Your task to perform on an android device: Open the phone app and click the voicemail tab. Image 0: 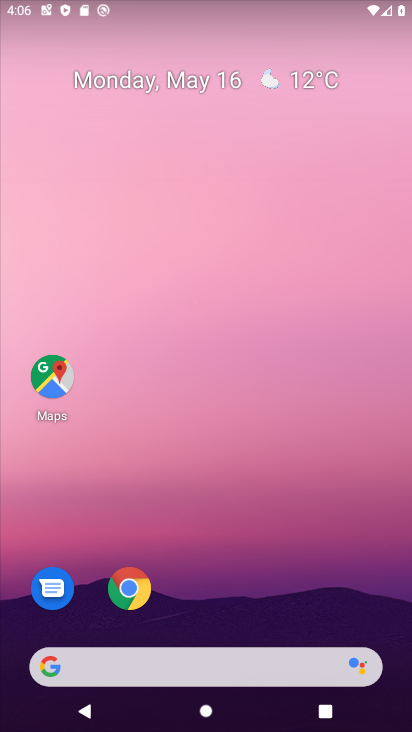
Step 0: drag from (212, 572) to (180, 82)
Your task to perform on an android device: Open the phone app and click the voicemail tab. Image 1: 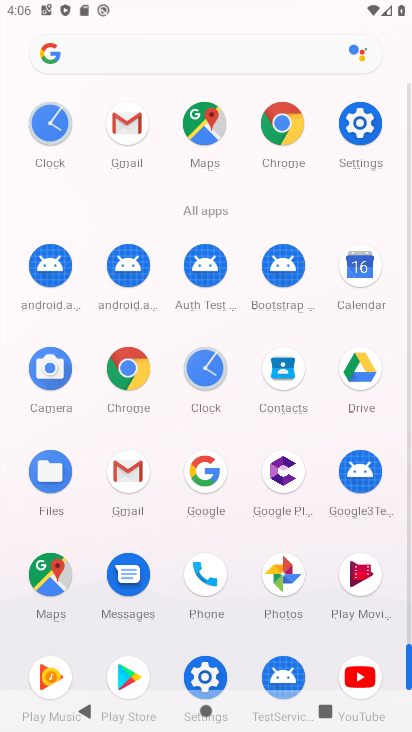
Step 1: click (211, 578)
Your task to perform on an android device: Open the phone app and click the voicemail tab. Image 2: 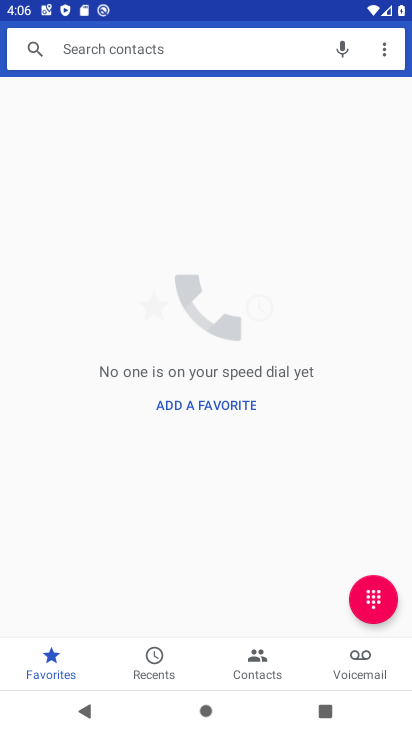
Step 2: click (363, 661)
Your task to perform on an android device: Open the phone app and click the voicemail tab. Image 3: 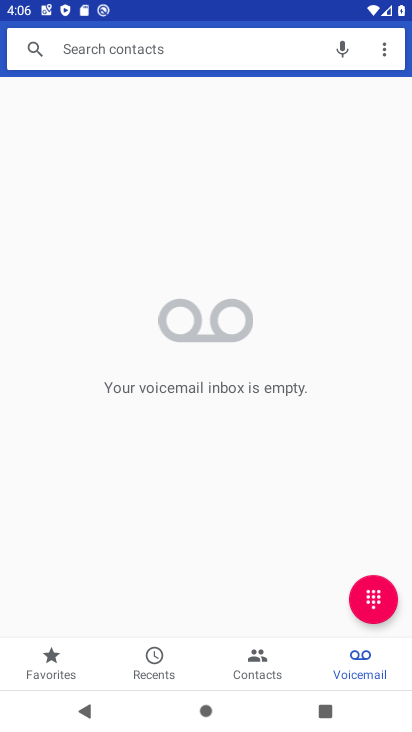
Step 3: task complete